Your task to perform on an android device: empty trash in the gmail app Image 0: 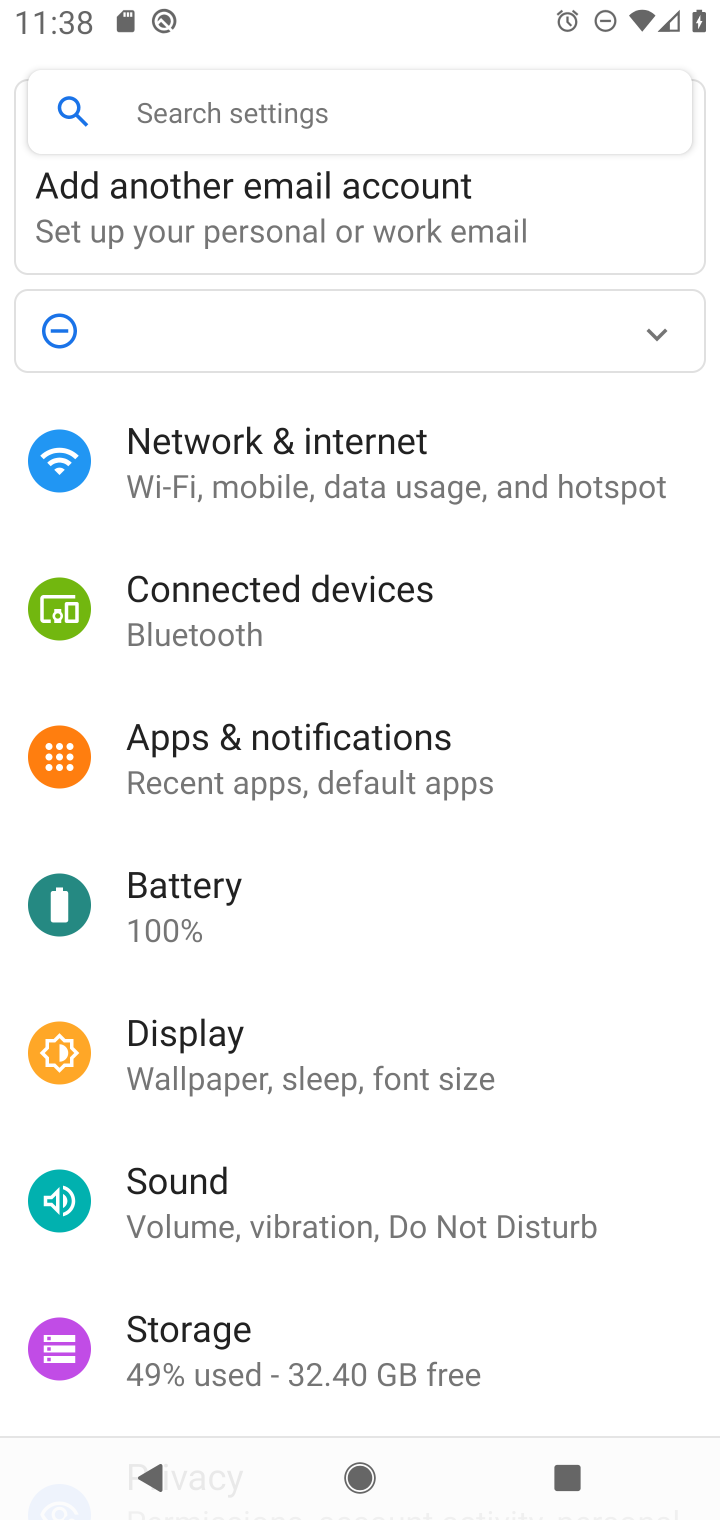
Step 0: press home button
Your task to perform on an android device: empty trash in the gmail app Image 1: 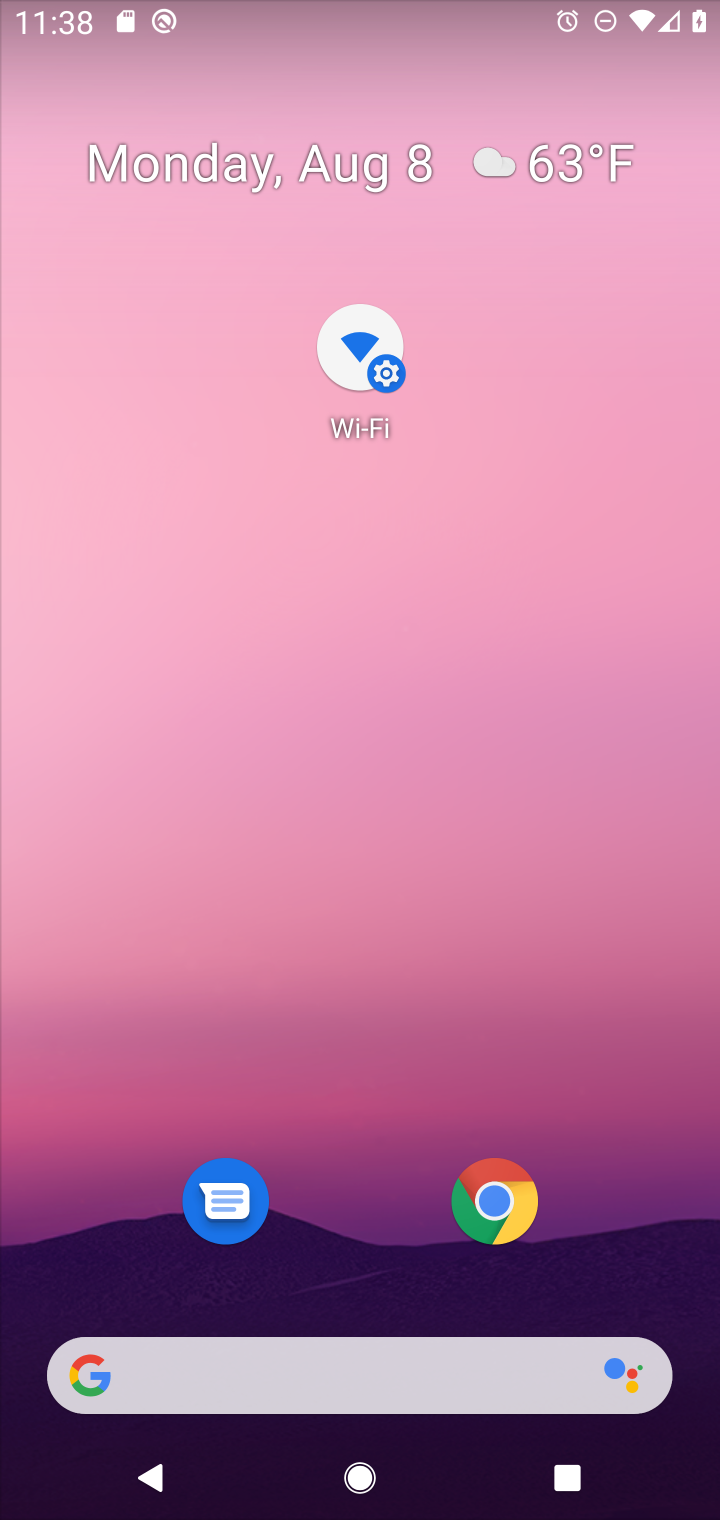
Step 1: drag from (378, 1158) to (481, 139)
Your task to perform on an android device: empty trash in the gmail app Image 2: 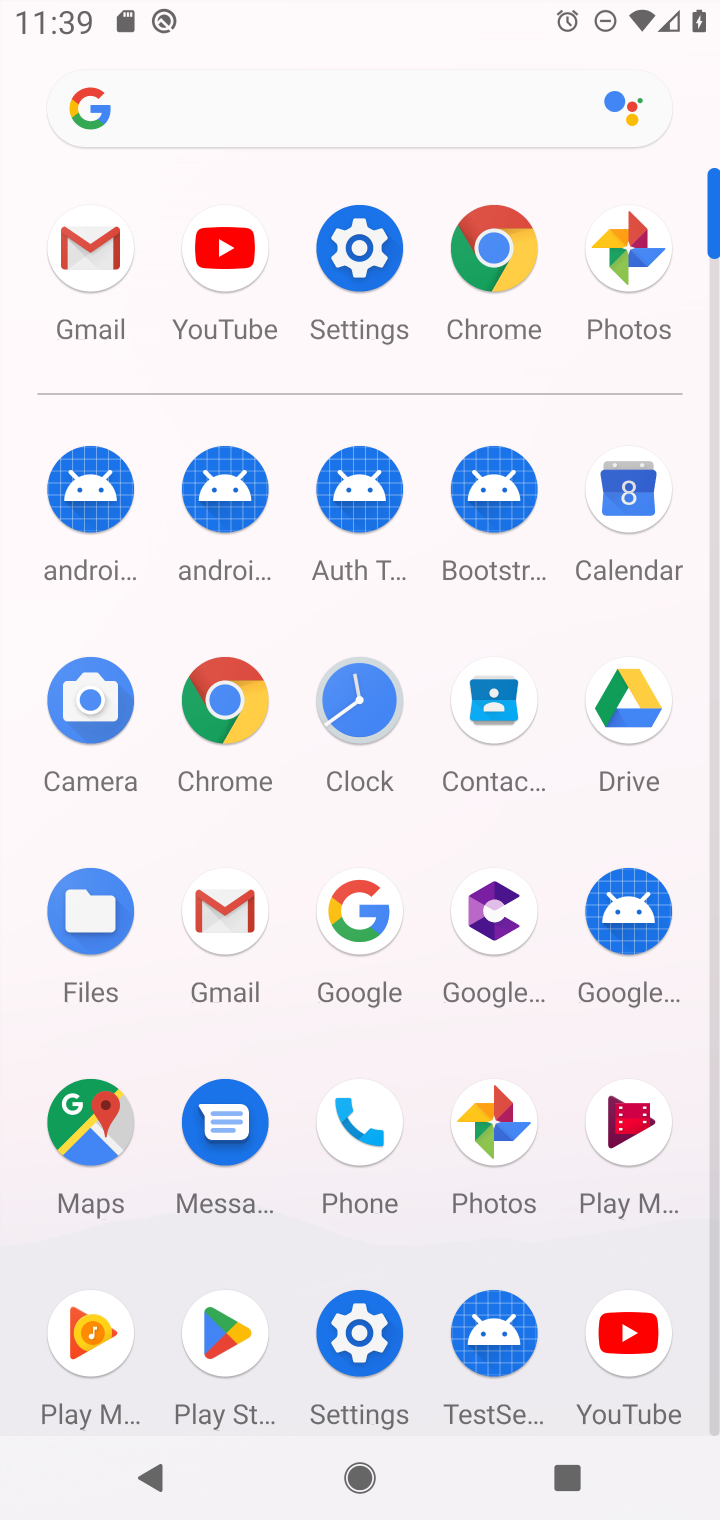
Step 2: click (223, 908)
Your task to perform on an android device: empty trash in the gmail app Image 3: 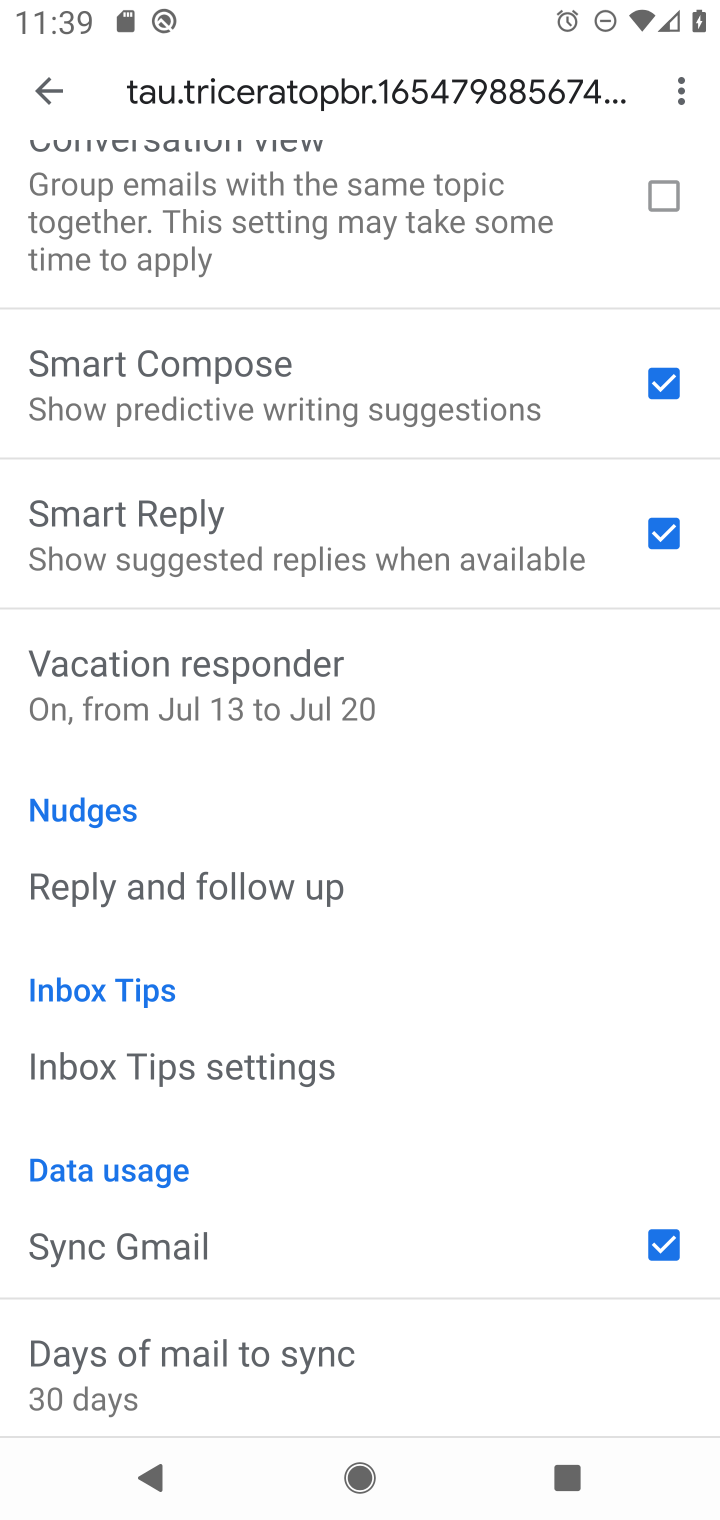
Step 3: press back button
Your task to perform on an android device: empty trash in the gmail app Image 4: 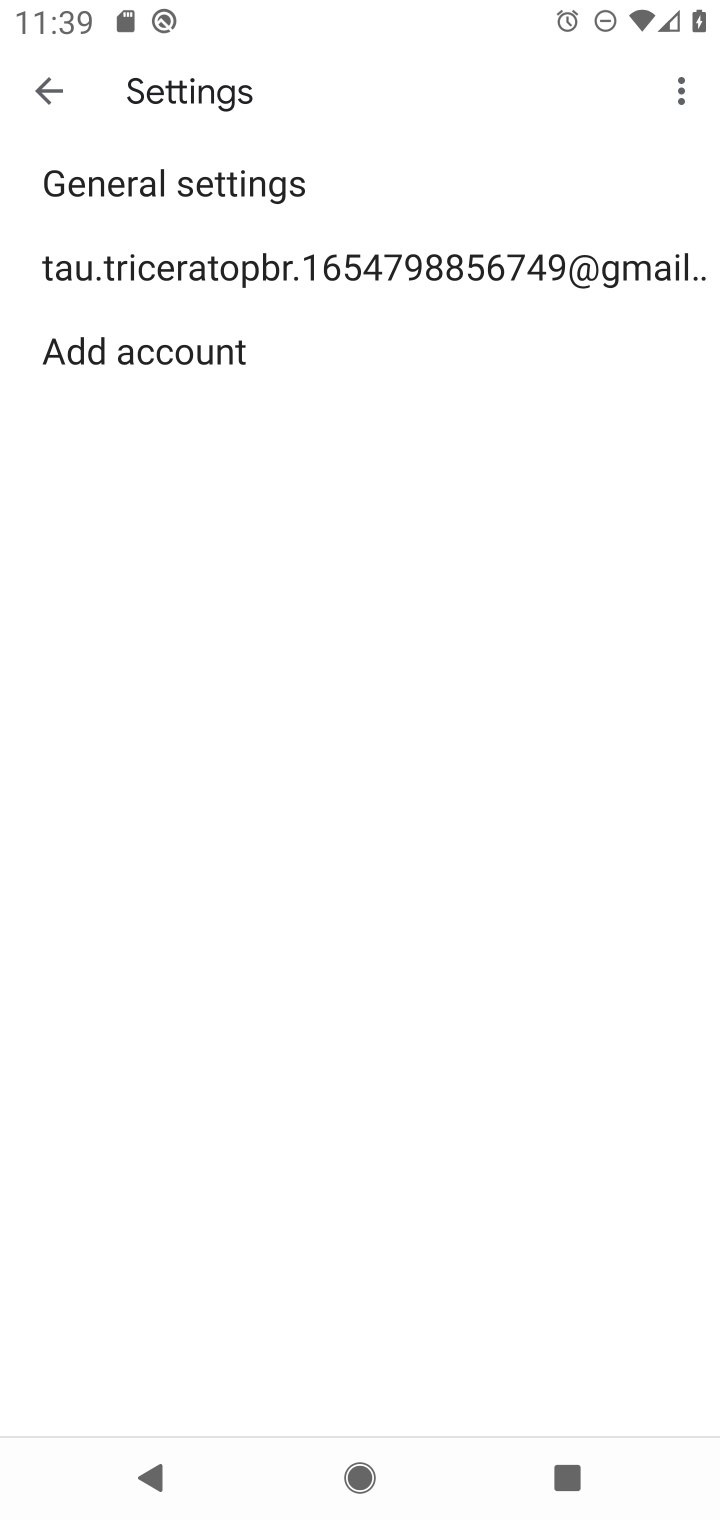
Step 4: press back button
Your task to perform on an android device: empty trash in the gmail app Image 5: 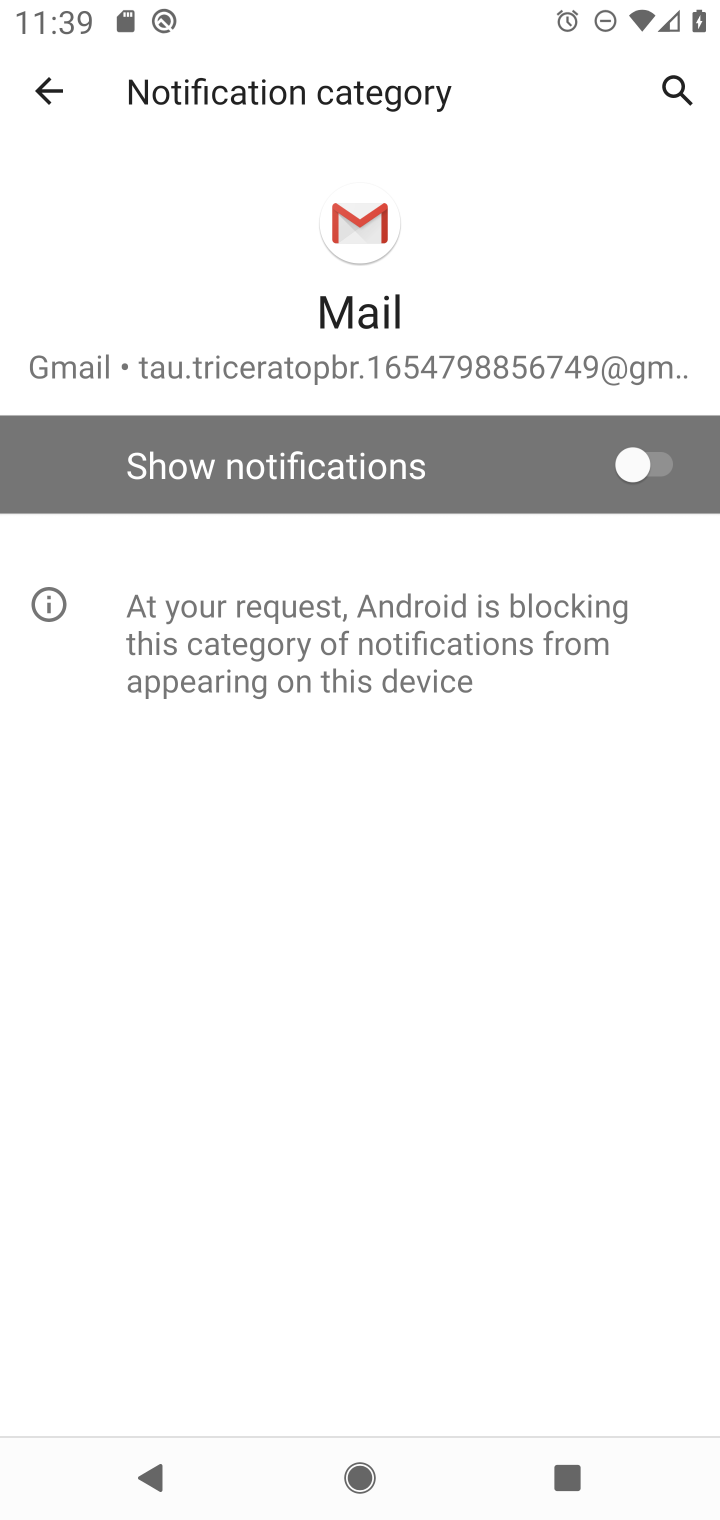
Step 5: press back button
Your task to perform on an android device: empty trash in the gmail app Image 6: 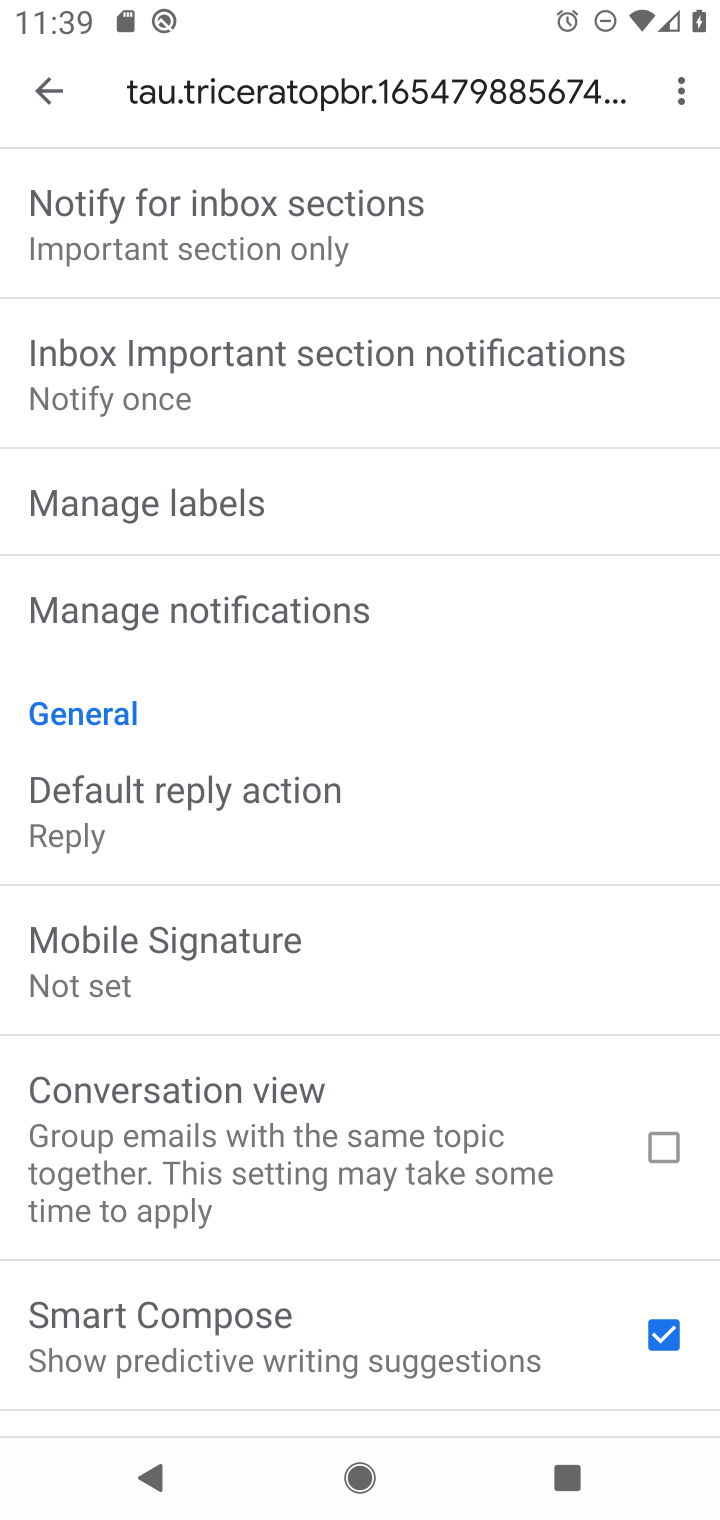
Step 6: press back button
Your task to perform on an android device: empty trash in the gmail app Image 7: 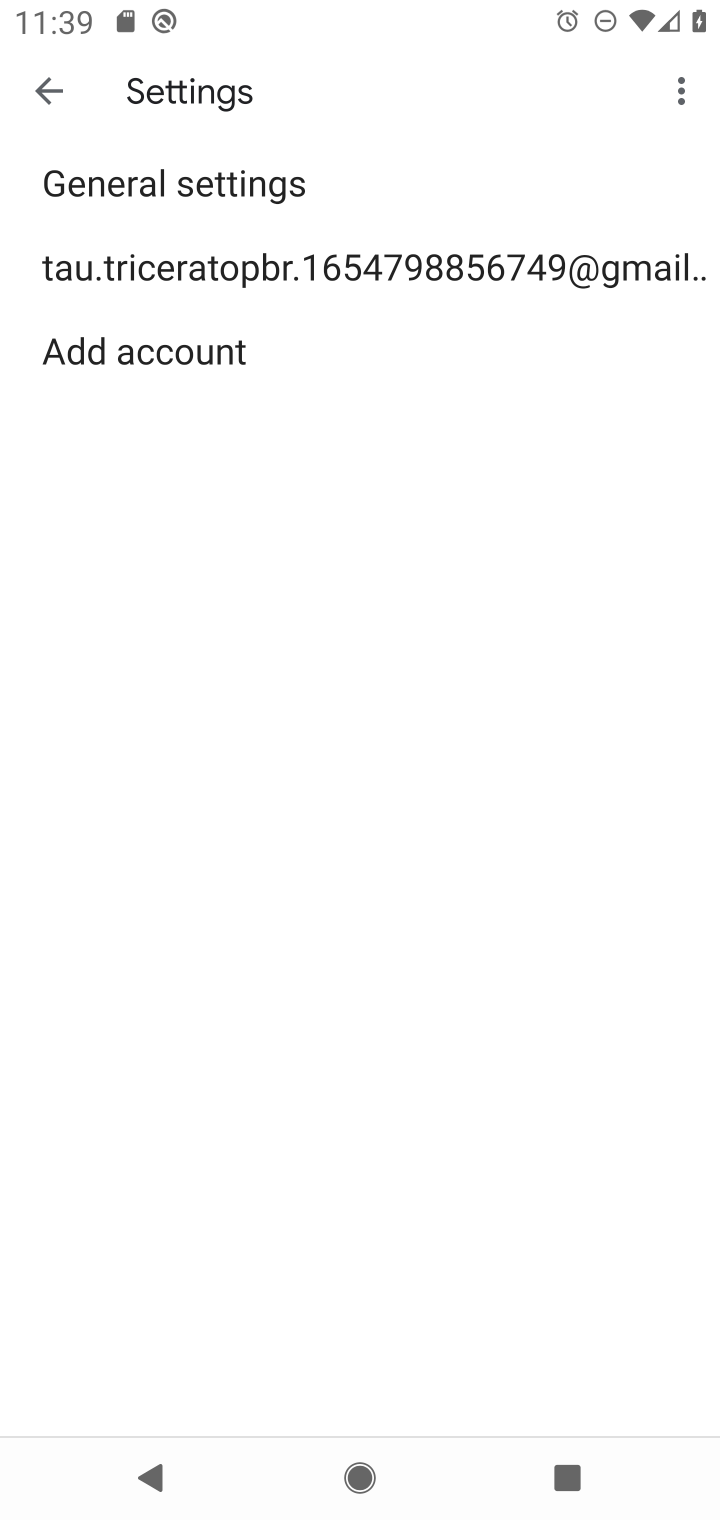
Step 7: click (56, 80)
Your task to perform on an android device: empty trash in the gmail app Image 8: 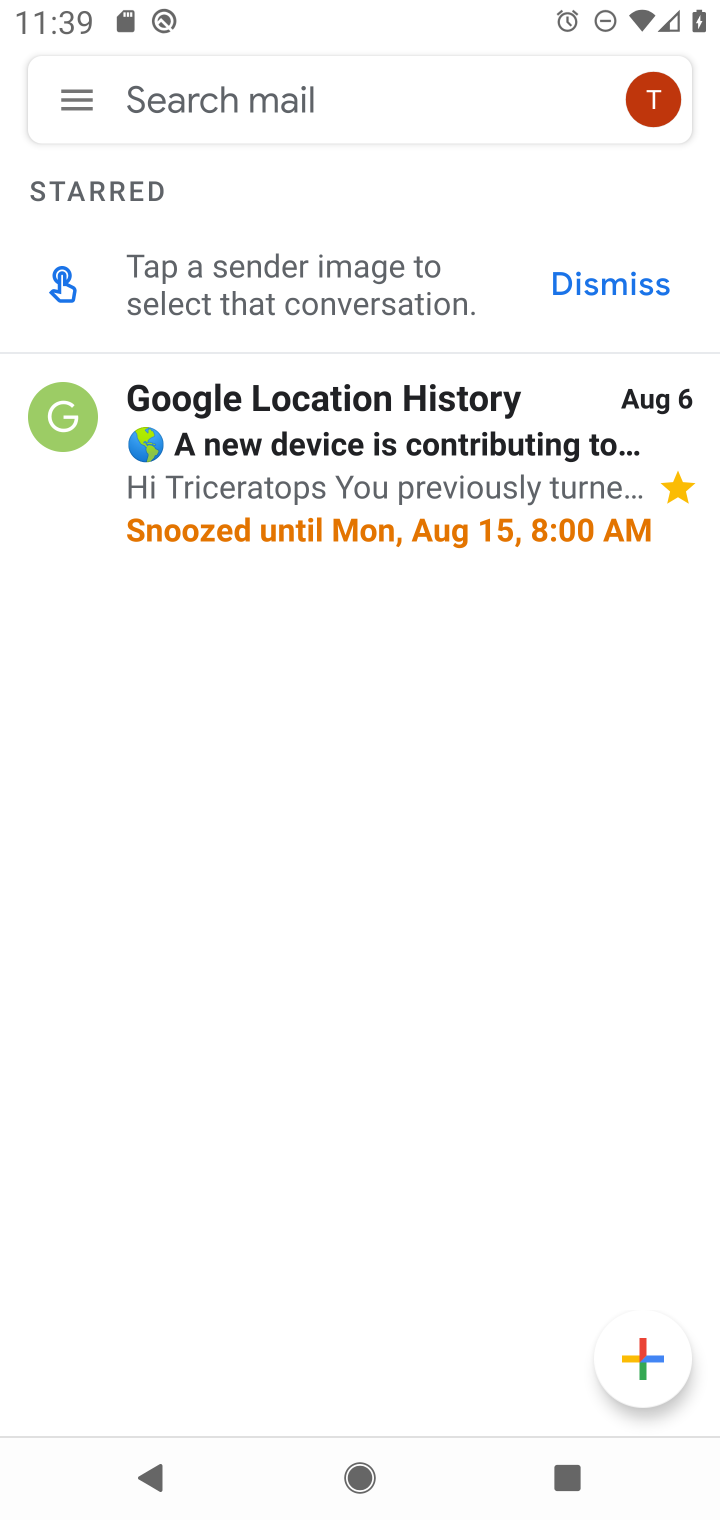
Step 8: click (73, 91)
Your task to perform on an android device: empty trash in the gmail app Image 9: 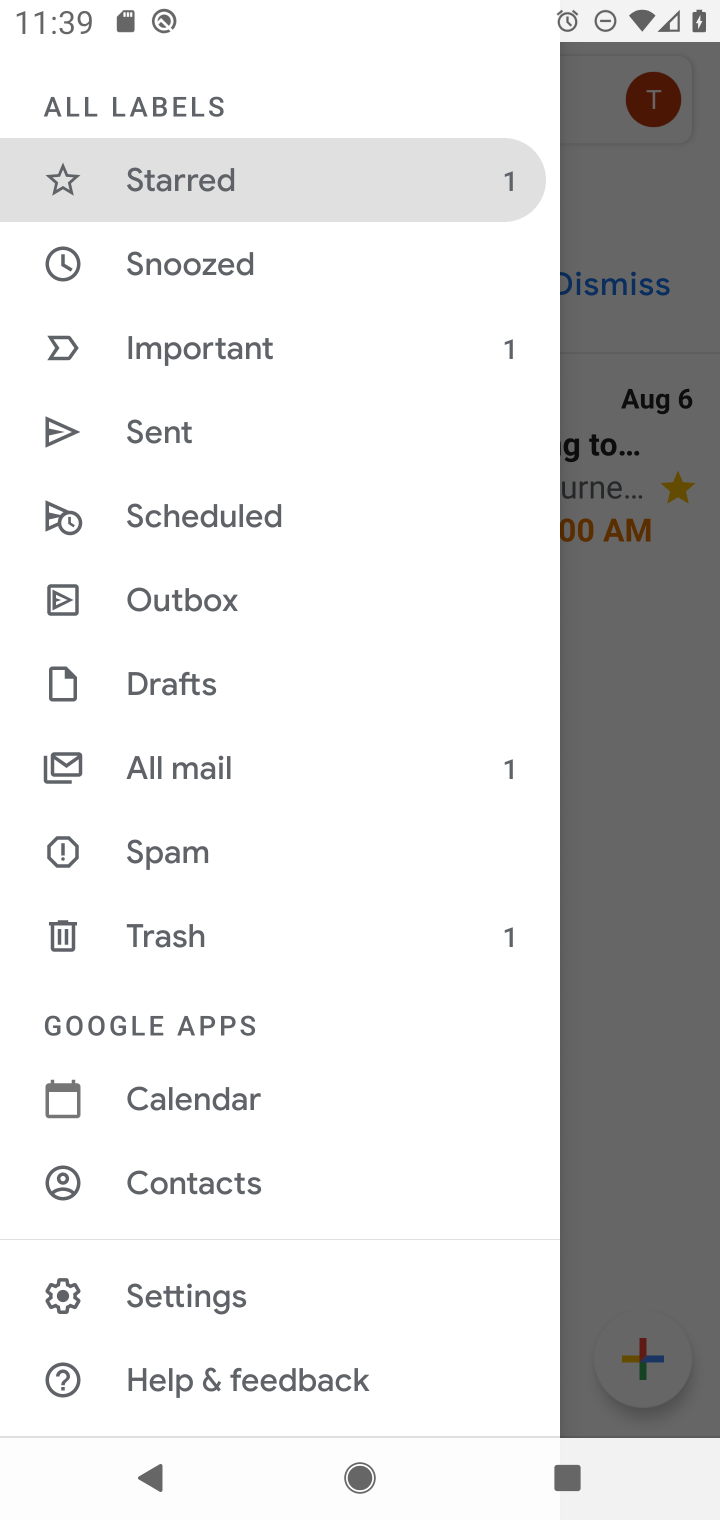
Step 9: drag from (331, 1134) to (374, 732)
Your task to perform on an android device: empty trash in the gmail app Image 10: 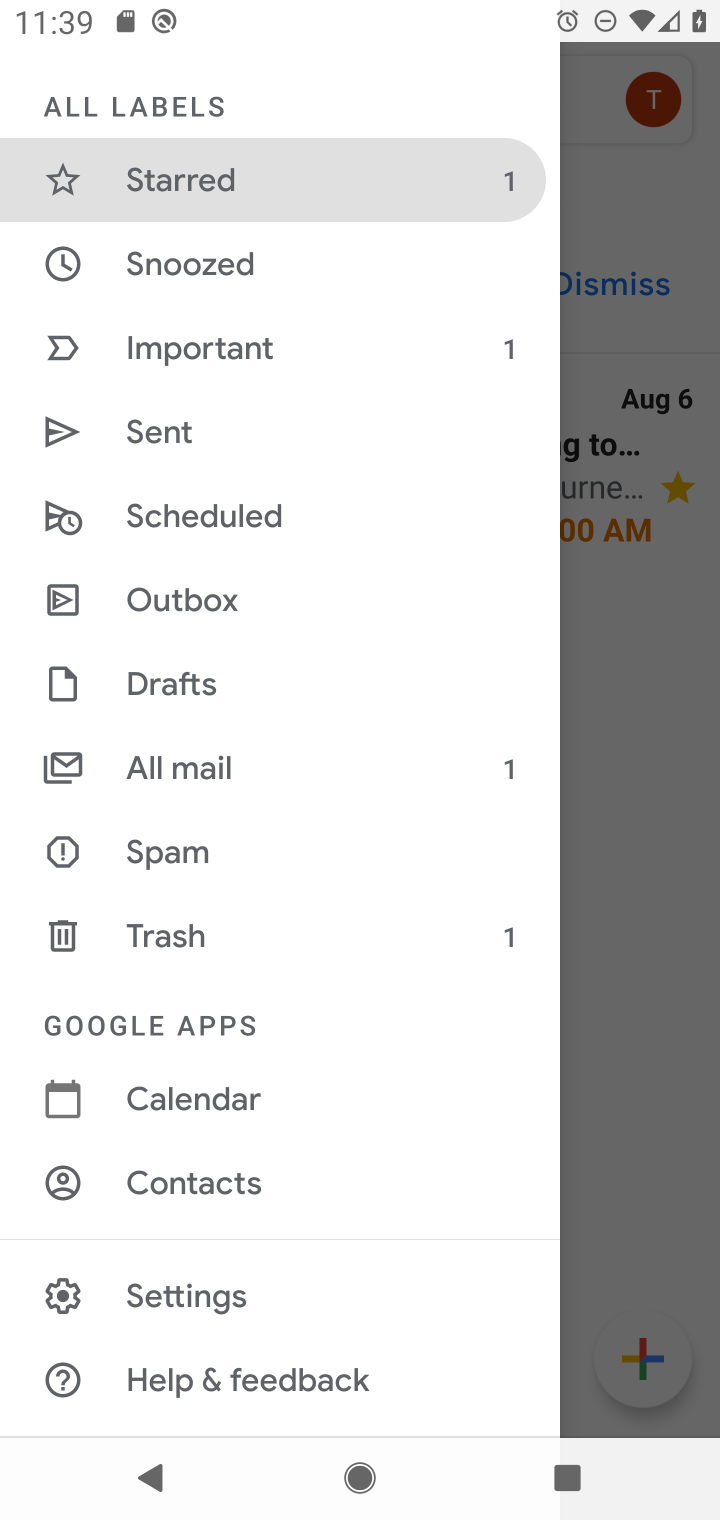
Step 10: click (309, 946)
Your task to perform on an android device: empty trash in the gmail app Image 11: 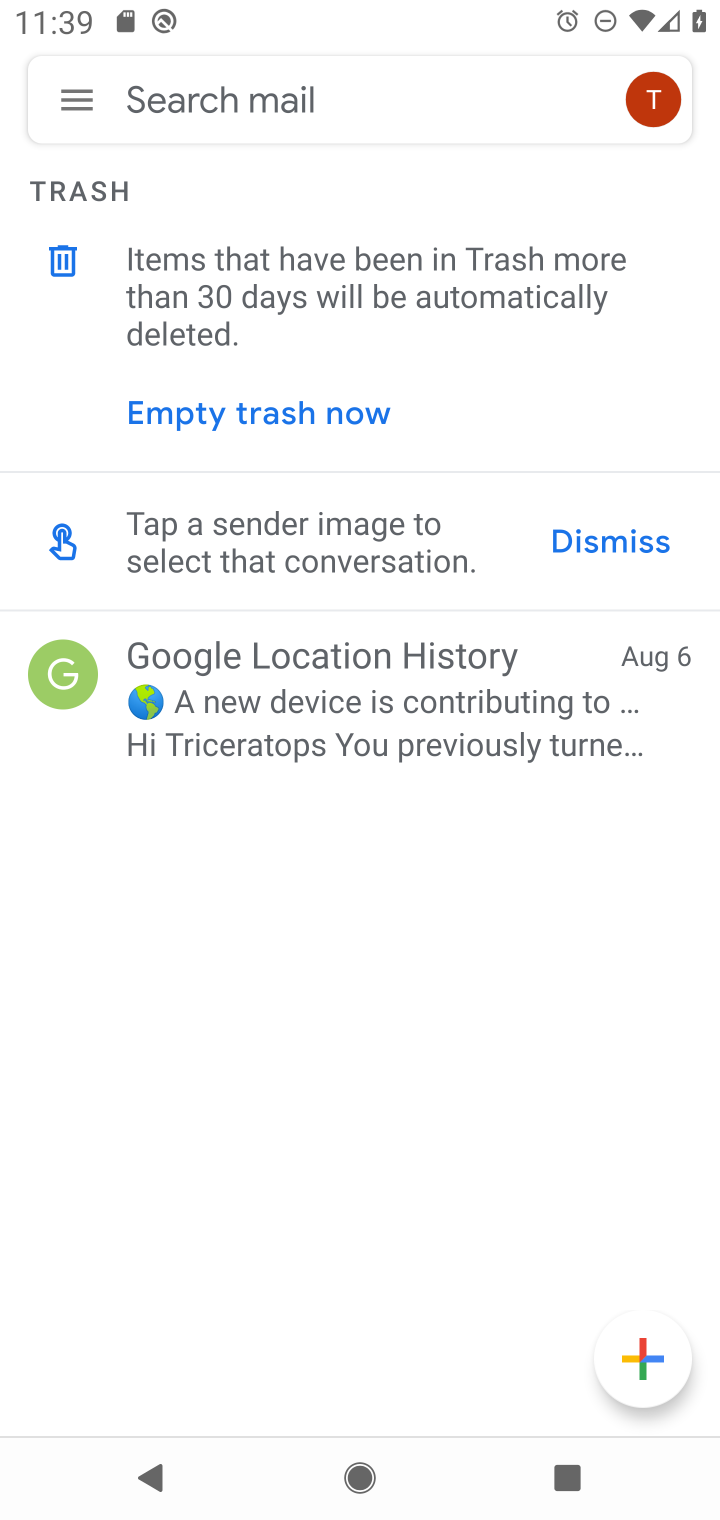
Step 11: click (296, 404)
Your task to perform on an android device: empty trash in the gmail app Image 12: 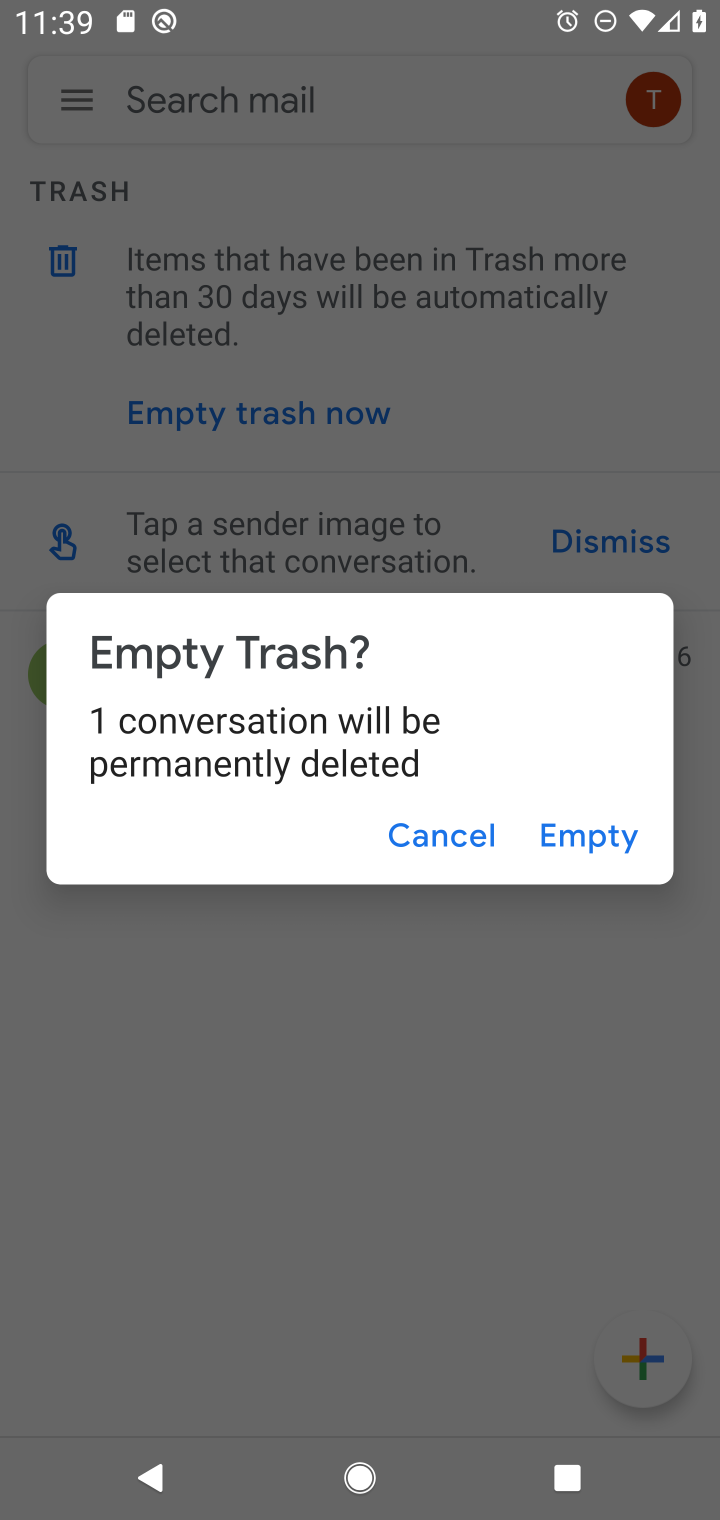
Step 12: click (603, 834)
Your task to perform on an android device: empty trash in the gmail app Image 13: 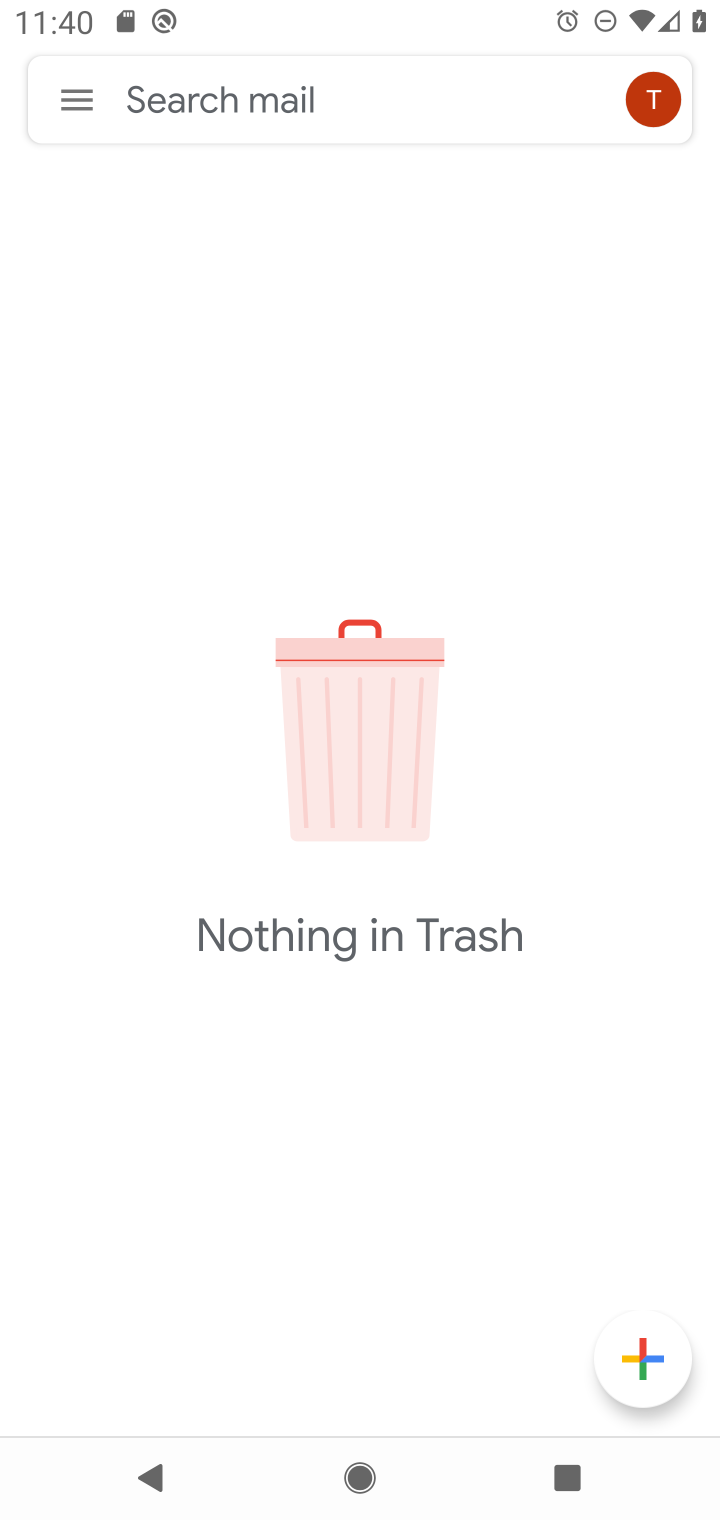
Step 13: task complete